Your task to perform on an android device: find snoozed emails in the gmail app Image 0: 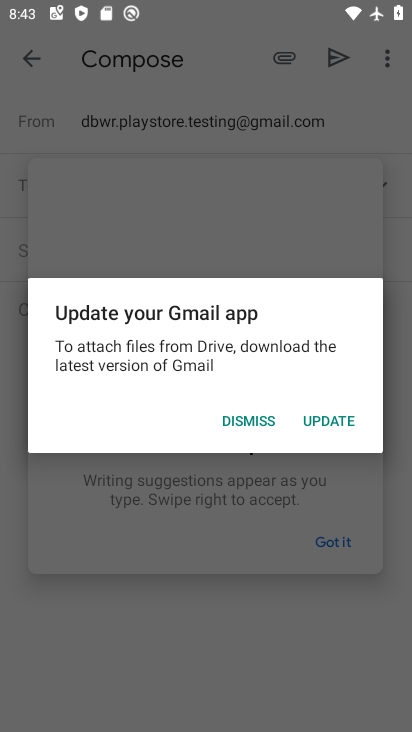
Step 0: press home button
Your task to perform on an android device: find snoozed emails in the gmail app Image 1: 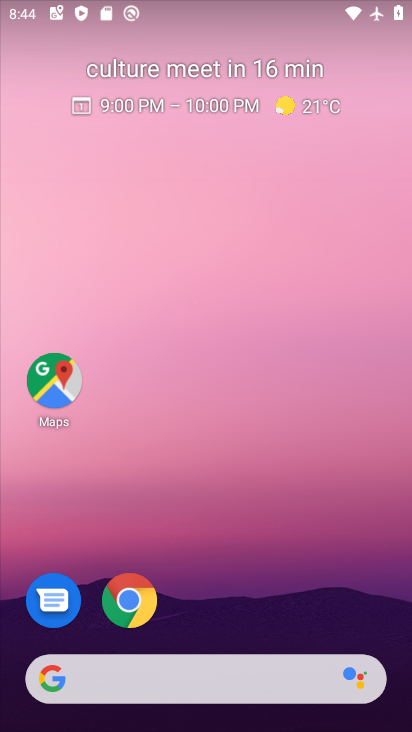
Step 1: drag from (325, 610) to (322, 103)
Your task to perform on an android device: find snoozed emails in the gmail app Image 2: 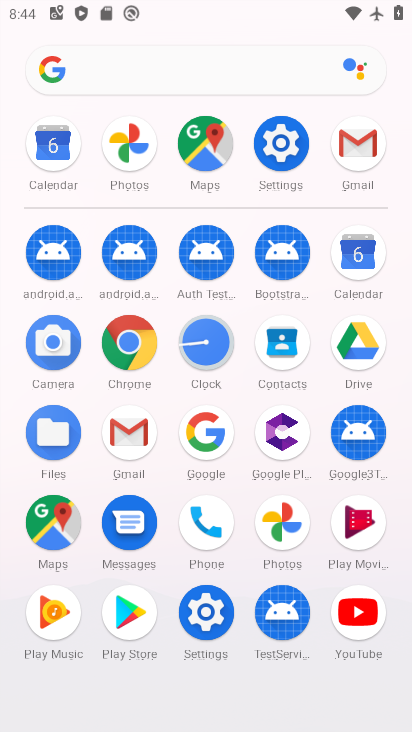
Step 2: click (131, 429)
Your task to perform on an android device: find snoozed emails in the gmail app Image 3: 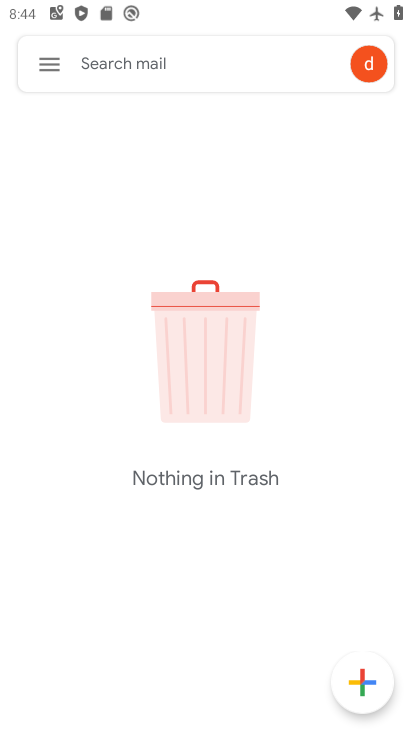
Step 3: click (45, 61)
Your task to perform on an android device: find snoozed emails in the gmail app Image 4: 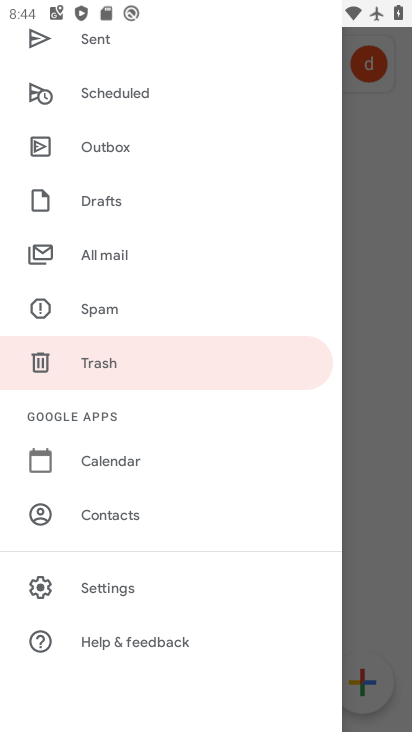
Step 4: drag from (197, 158) to (181, 452)
Your task to perform on an android device: find snoozed emails in the gmail app Image 5: 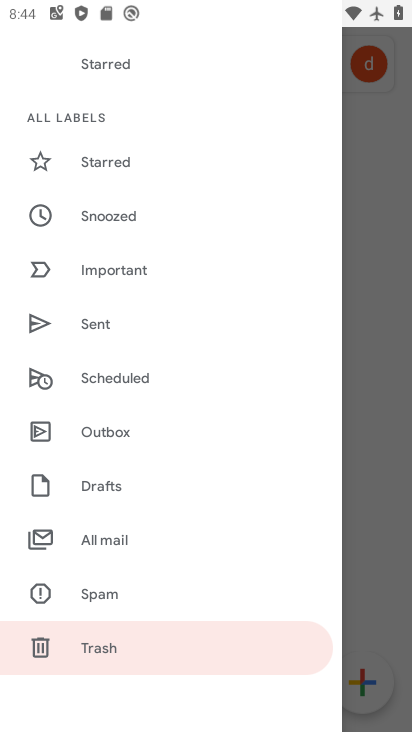
Step 5: click (109, 214)
Your task to perform on an android device: find snoozed emails in the gmail app Image 6: 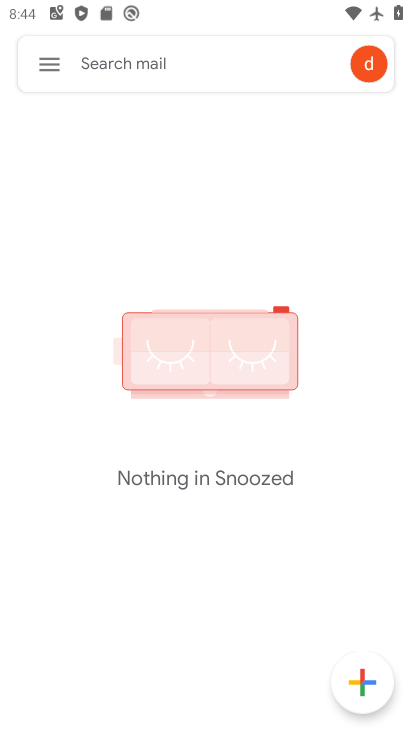
Step 6: task complete